Your task to perform on an android device: turn on improve location accuracy Image 0: 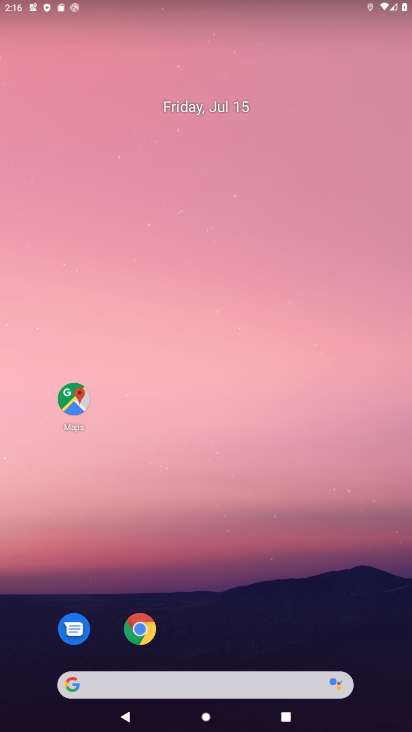
Step 0: drag from (206, 648) to (234, 154)
Your task to perform on an android device: turn on improve location accuracy Image 1: 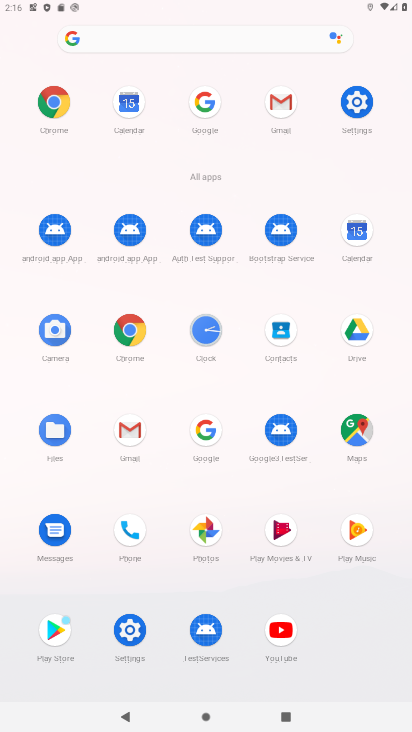
Step 1: click (353, 106)
Your task to perform on an android device: turn on improve location accuracy Image 2: 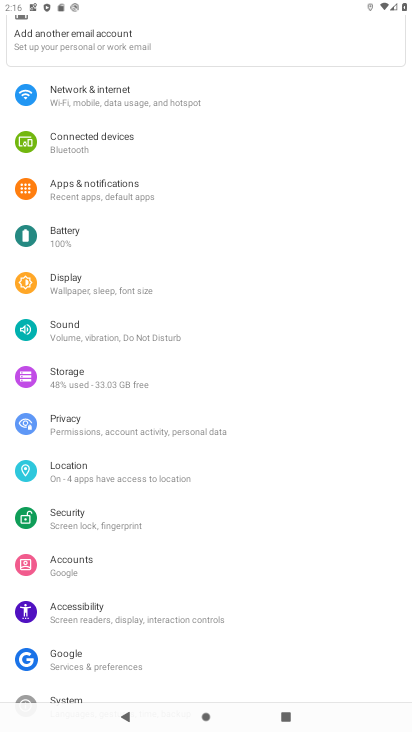
Step 2: click (83, 465)
Your task to perform on an android device: turn on improve location accuracy Image 3: 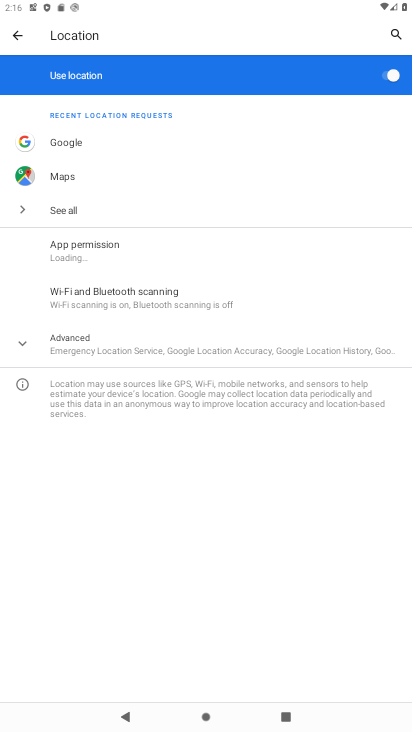
Step 3: click (66, 342)
Your task to perform on an android device: turn on improve location accuracy Image 4: 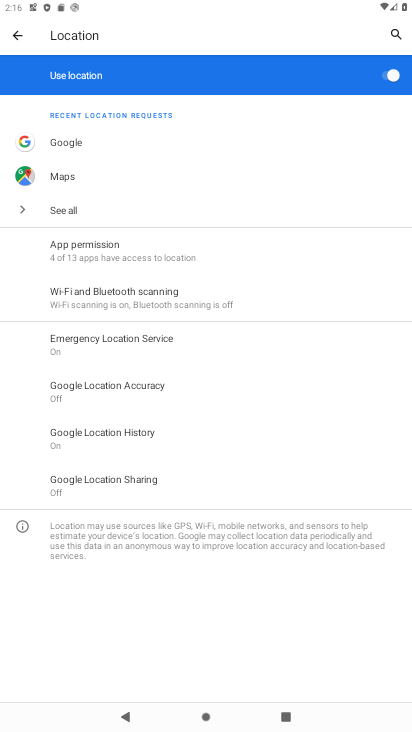
Step 4: click (154, 388)
Your task to perform on an android device: turn on improve location accuracy Image 5: 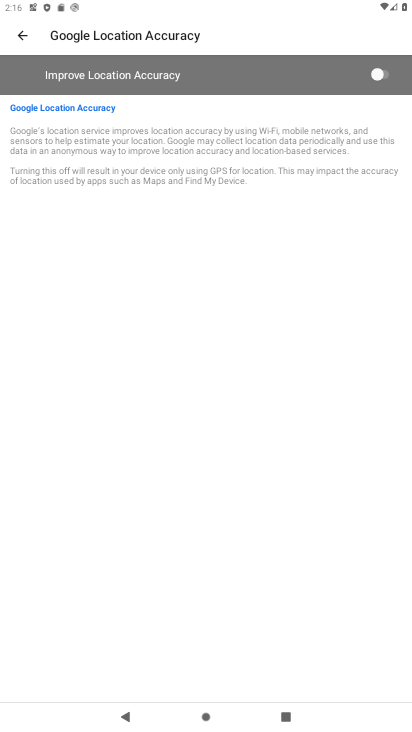
Step 5: click (383, 75)
Your task to perform on an android device: turn on improve location accuracy Image 6: 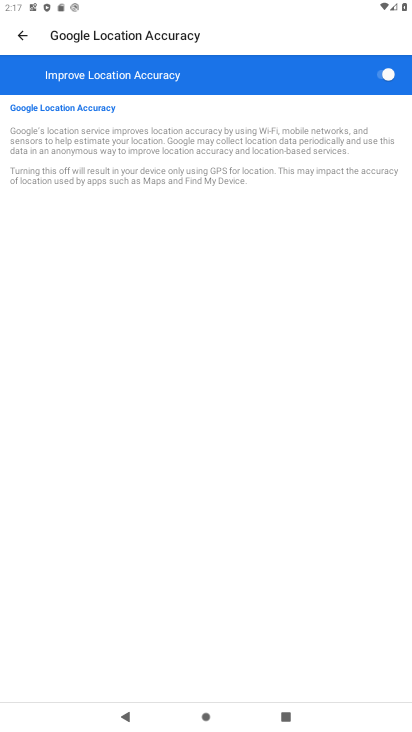
Step 6: task complete